Your task to perform on an android device: What's the weather today? Image 0: 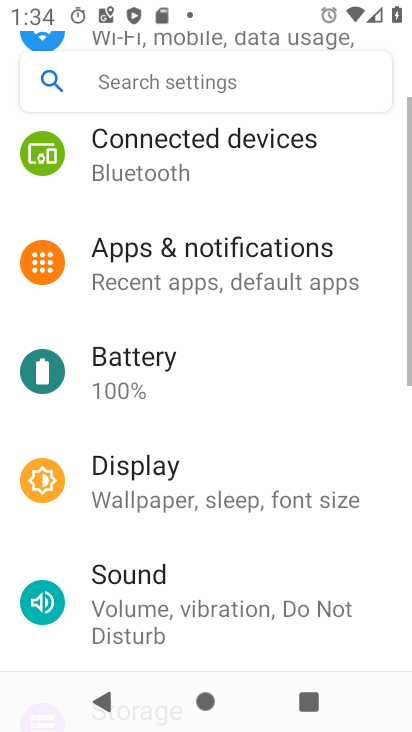
Step 0: press home button
Your task to perform on an android device: What's the weather today? Image 1: 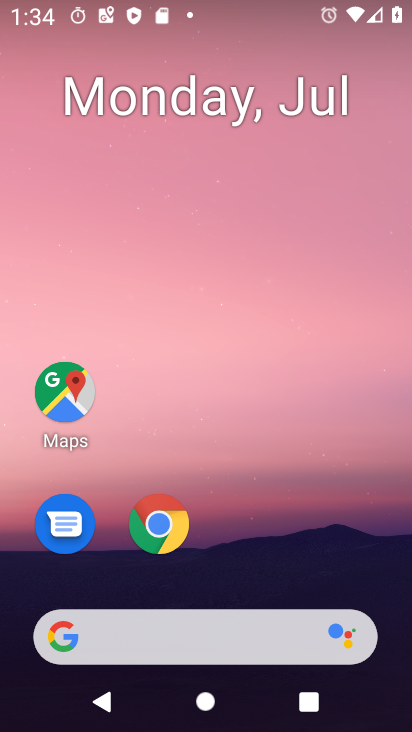
Step 1: click (61, 635)
Your task to perform on an android device: What's the weather today? Image 2: 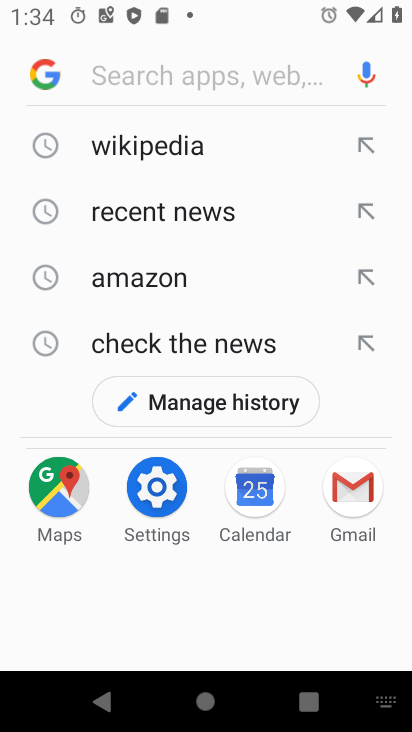
Step 2: type "What's the weather today?"
Your task to perform on an android device: What's the weather today? Image 3: 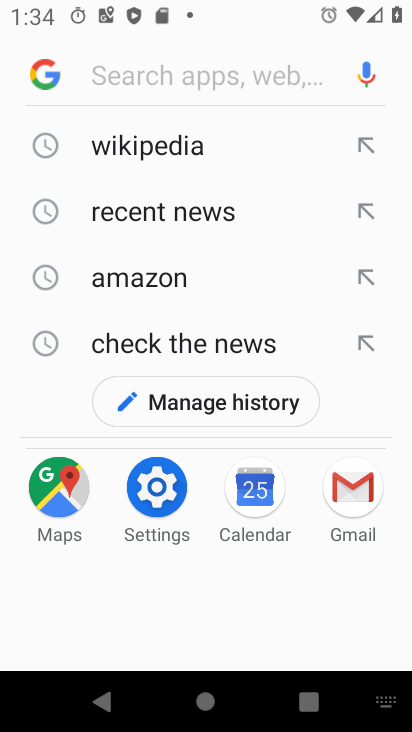
Step 3: click (207, 76)
Your task to perform on an android device: What's the weather today? Image 4: 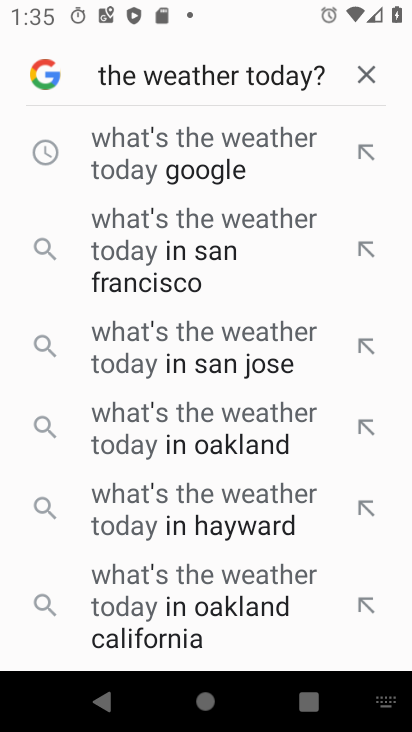
Step 4: press enter
Your task to perform on an android device: What's the weather today? Image 5: 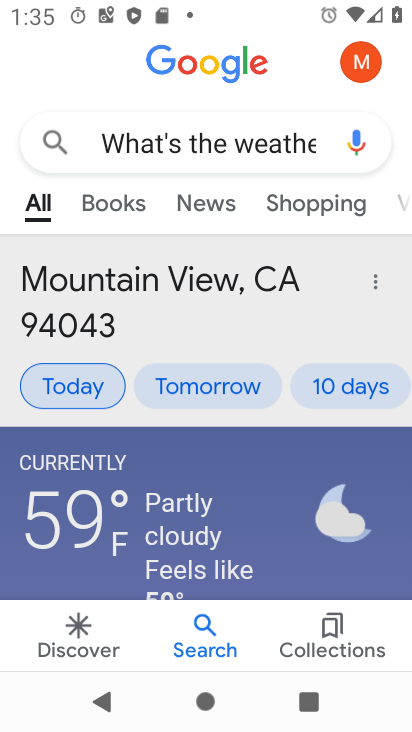
Step 5: task complete